Your task to perform on an android device: Find coffee shops on Maps Image 0: 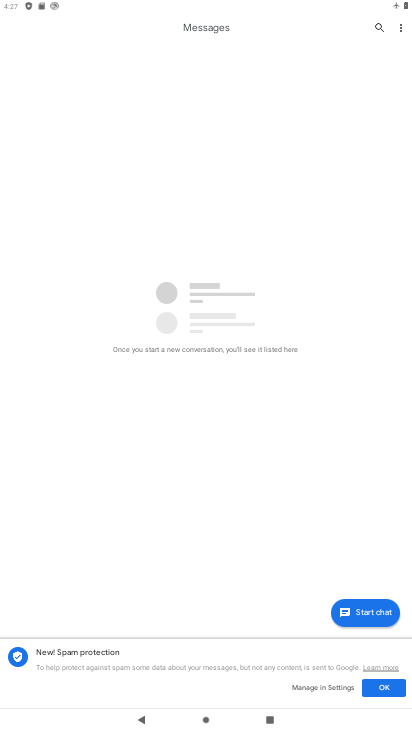
Step 0: press home button
Your task to perform on an android device: Find coffee shops on Maps Image 1: 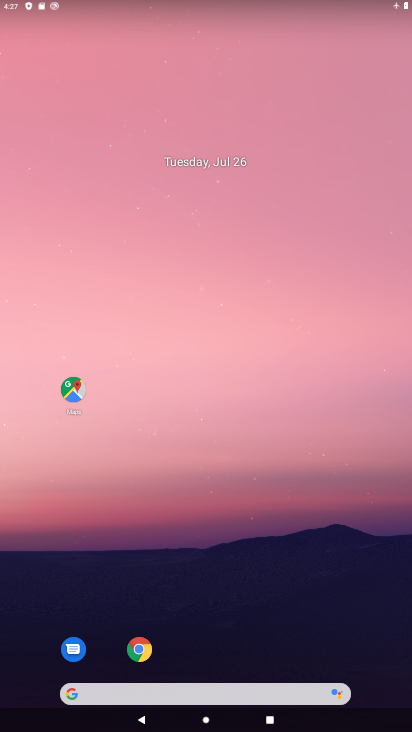
Step 1: click (48, 401)
Your task to perform on an android device: Find coffee shops on Maps Image 2: 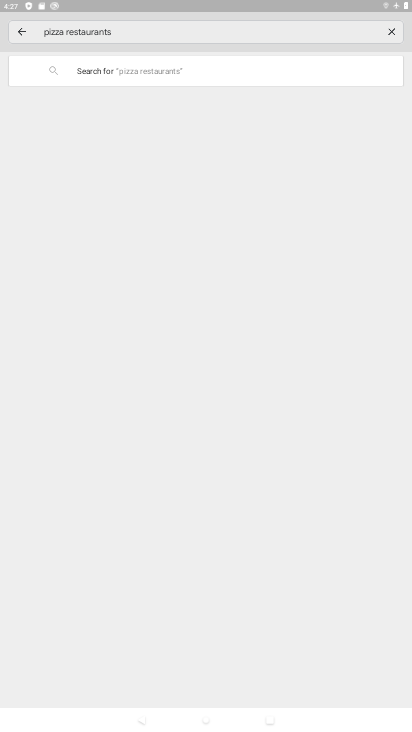
Step 2: click (393, 34)
Your task to perform on an android device: Find coffee shops on Maps Image 3: 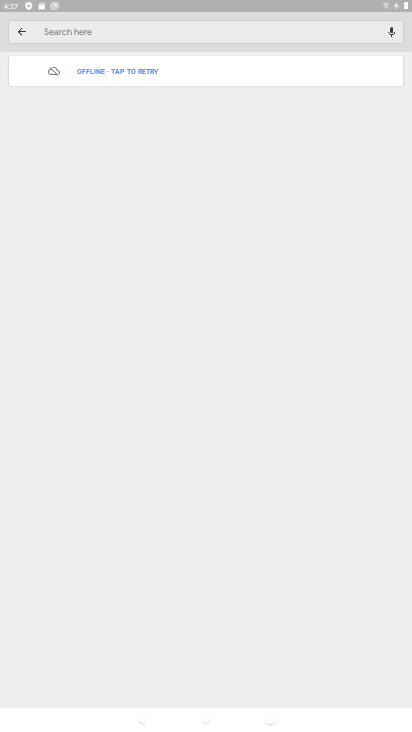
Step 3: click (73, 31)
Your task to perform on an android device: Find coffee shops on Maps Image 4: 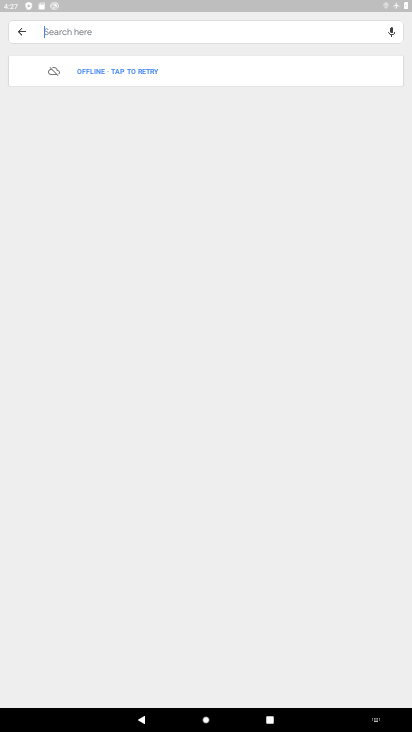
Step 4: type "coffee shops"
Your task to perform on an android device: Find coffee shops on Maps Image 5: 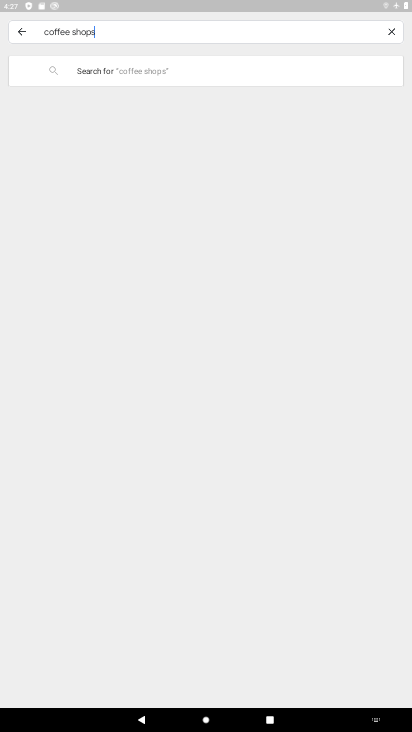
Step 5: type ""
Your task to perform on an android device: Find coffee shops on Maps Image 6: 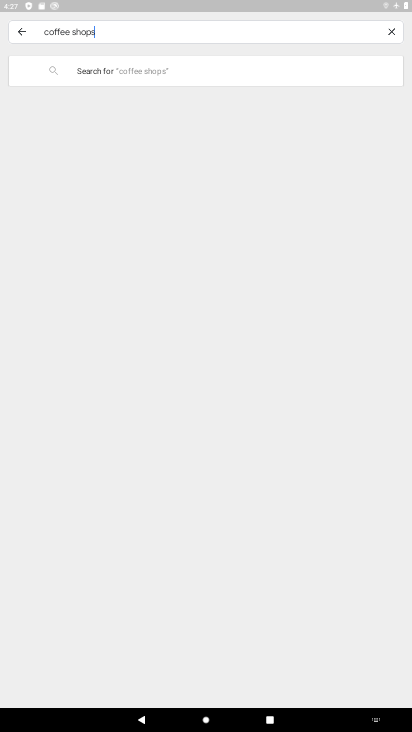
Step 6: task complete